Your task to perform on an android device: Toggle the flashlight Image 0: 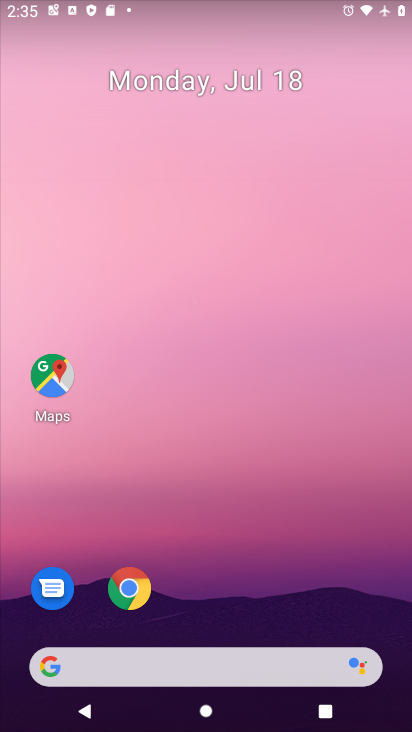
Step 0: drag from (193, 691) to (247, 211)
Your task to perform on an android device: Toggle the flashlight Image 1: 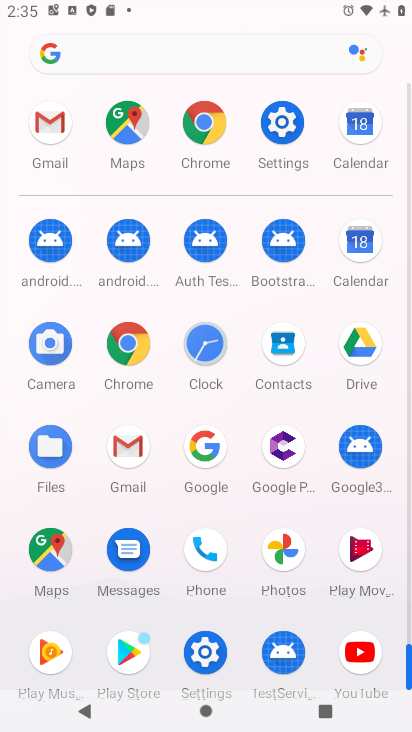
Step 1: task complete